Your task to perform on an android device: What's on my calendar today? Image 0: 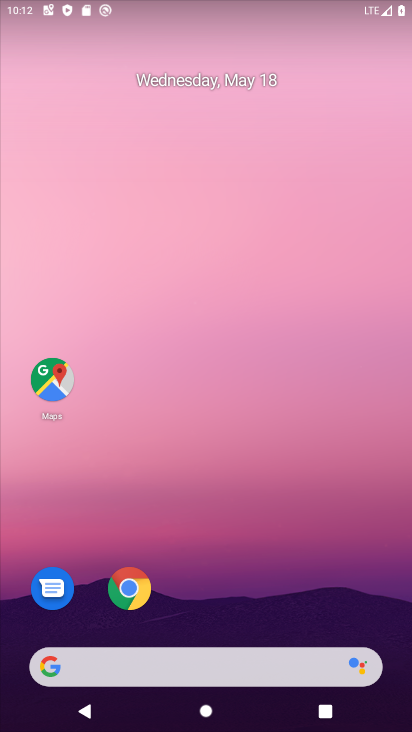
Step 0: drag from (244, 374) to (226, 9)
Your task to perform on an android device: What's on my calendar today? Image 1: 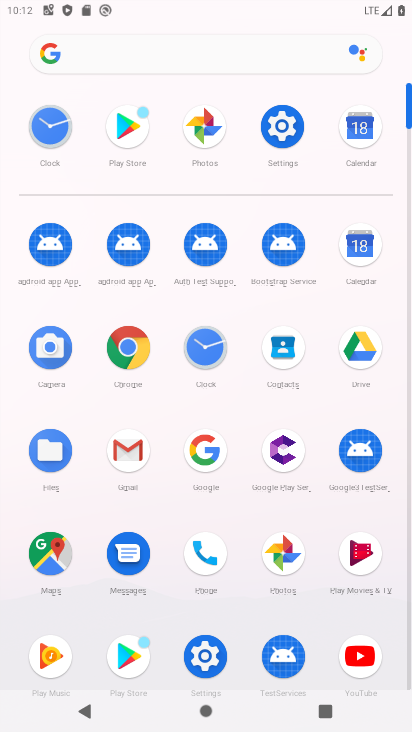
Step 1: click (358, 132)
Your task to perform on an android device: What's on my calendar today? Image 2: 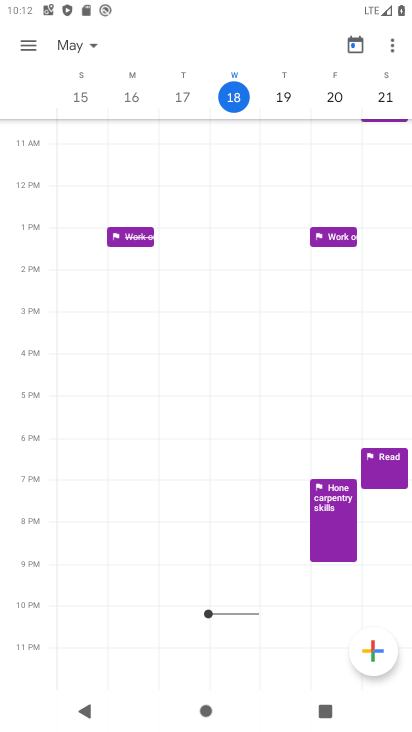
Step 2: click (33, 47)
Your task to perform on an android device: What's on my calendar today? Image 3: 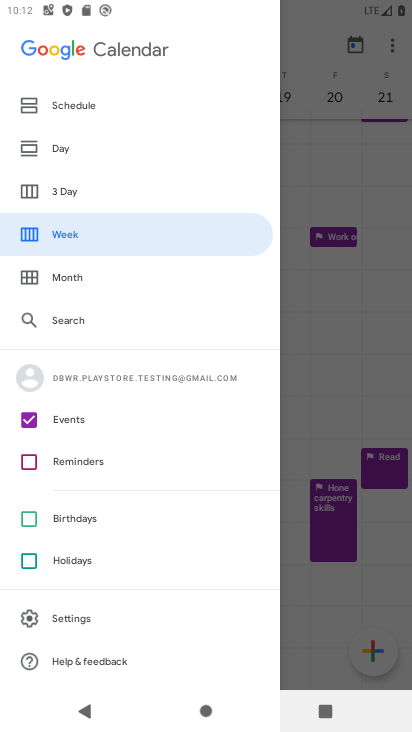
Step 3: click (61, 111)
Your task to perform on an android device: What's on my calendar today? Image 4: 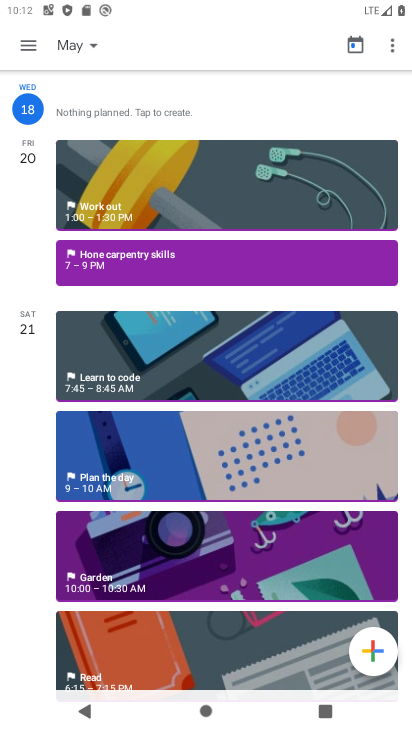
Step 4: click (95, 46)
Your task to perform on an android device: What's on my calendar today? Image 5: 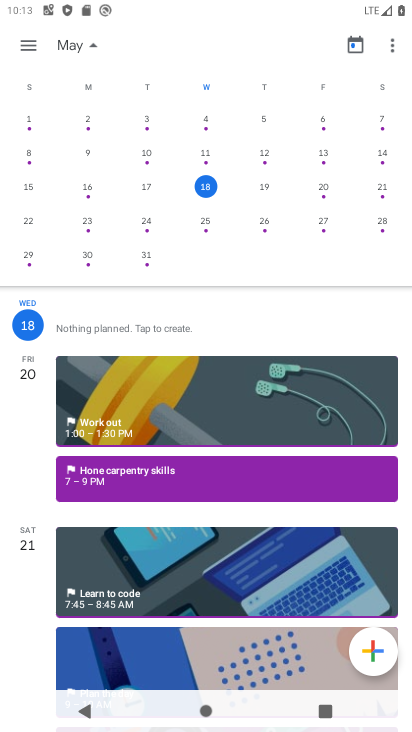
Step 5: click (260, 187)
Your task to perform on an android device: What's on my calendar today? Image 6: 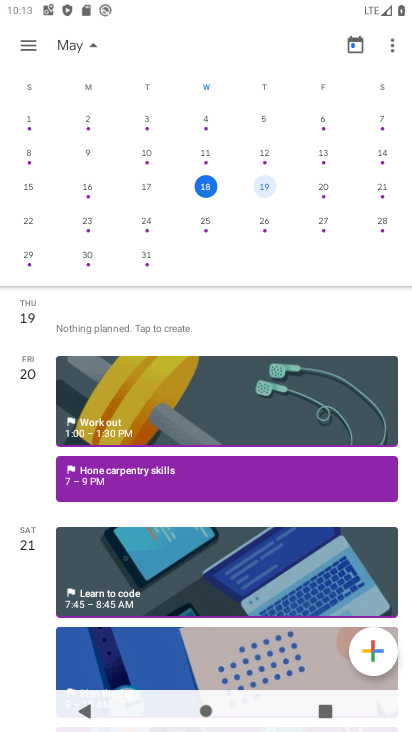
Step 6: click (115, 327)
Your task to perform on an android device: What's on my calendar today? Image 7: 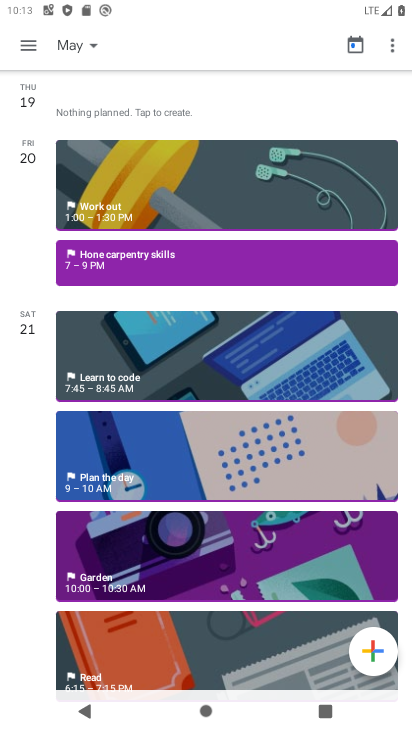
Step 7: click (119, 114)
Your task to perform on an android device: What's on my calendar today? Image 8: 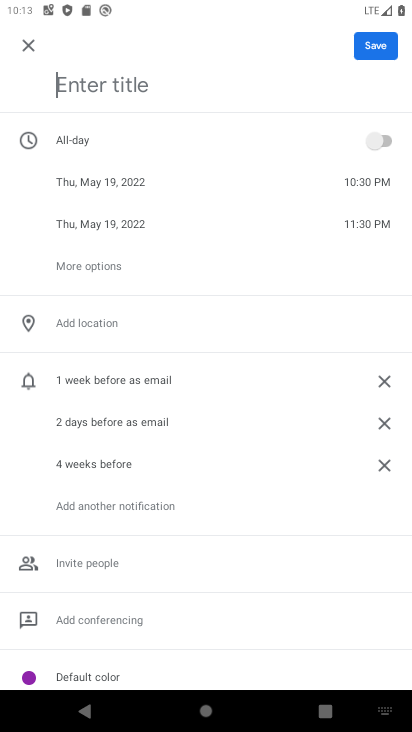
Step 8: task complete